Your task to perform on an android device: Go to Reddit.com Image 0: 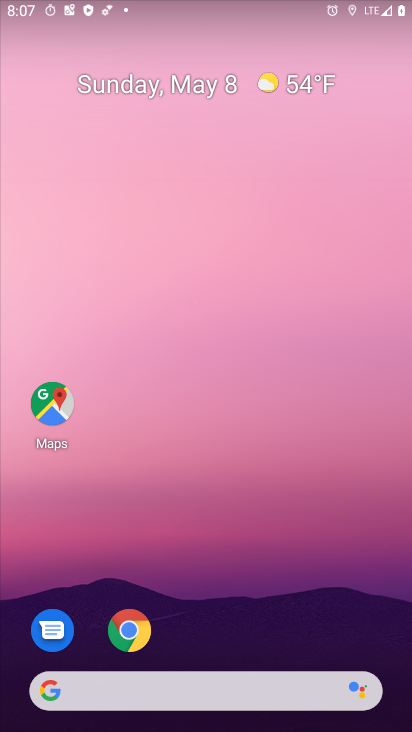
Step 0: drag from (207, 656) to (142, 69)
Your task to perform on an android device: Go to Reddit.com Image 1: 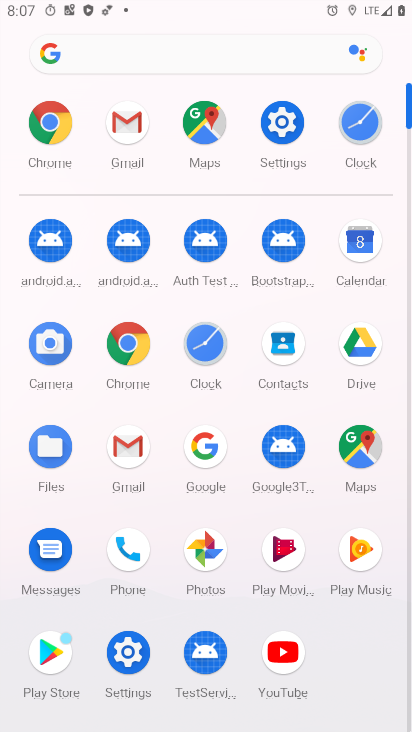
Step 1: click (134, 336)
Your task to perform on an android device: Go to Reddit.com Image 2: 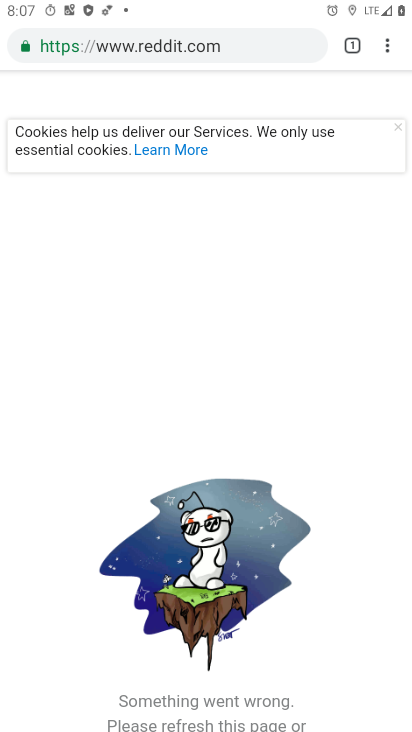
Step 2: click (400, 124)
Your task to perform on an android device: Go to Reddit.com Image 3: 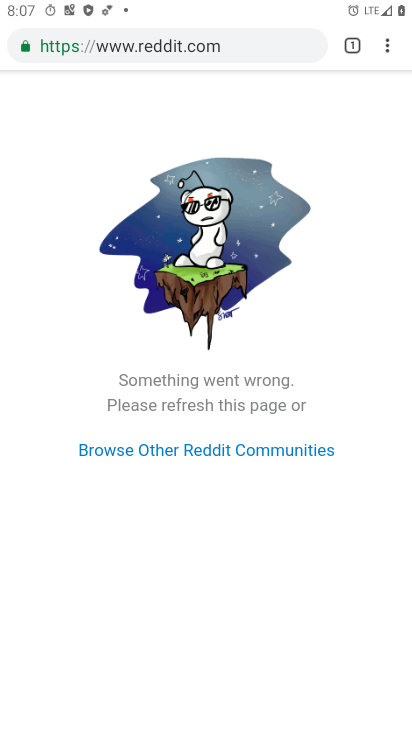
Step 3: click (166, 447)
Your task to perform on an android device: Go to Reddit.com Image 4: 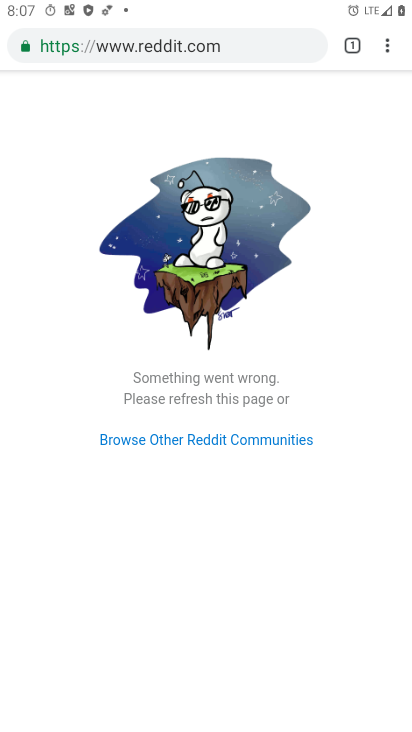
Step 4: task complete